Your task to perform on an android device: add a label to a message in the gmail app Image 0: 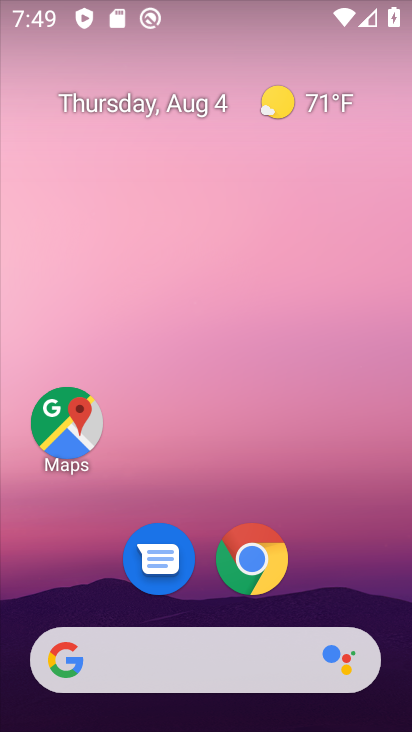
Step 0: drag from (256, 631) to (309, 6)
Your task to perform on an android device: add a label to a message in the gmail app Image 1: 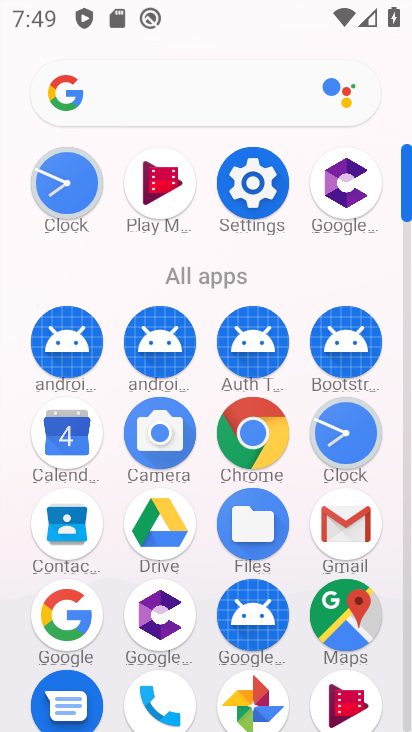
Step 1: click (323, 539)
Your task to perform on an android device: add a label to a message in the gmail app Image 2: 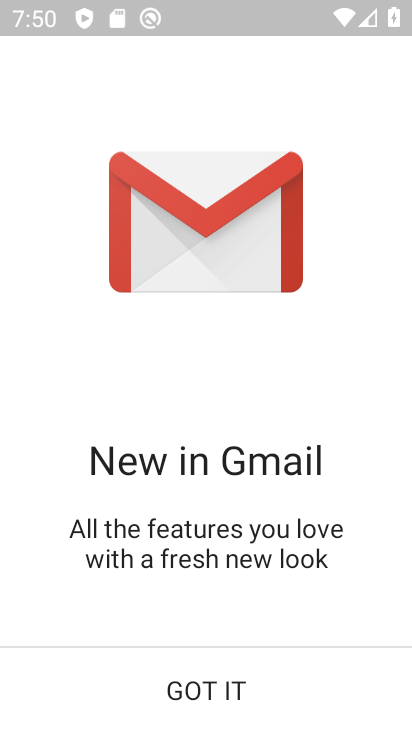
Step 2: click (236, 701)
Your task to perform on an android device: add a label to a message in the gmail app Image 3: 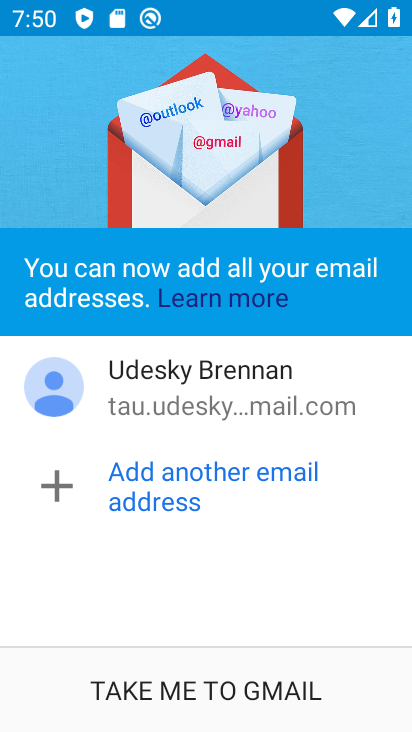
Step 3: click (234, 703)
Your task to perform on an android device: add a label to a message in the gmail app Image 4: 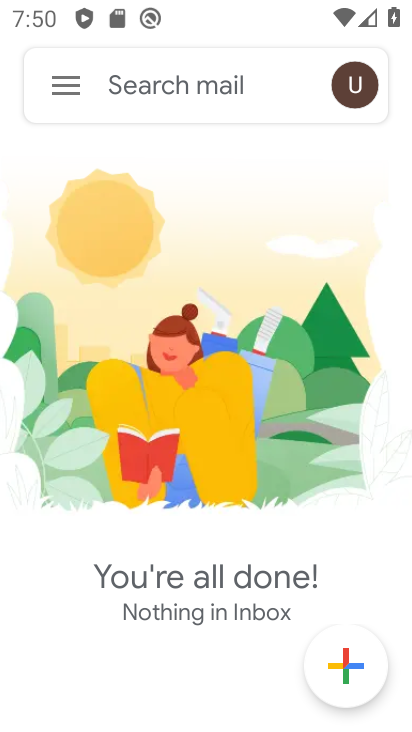
Step 4: task complete